Your task to perform on an android device: toggle pop-ups in chrome Image 0: 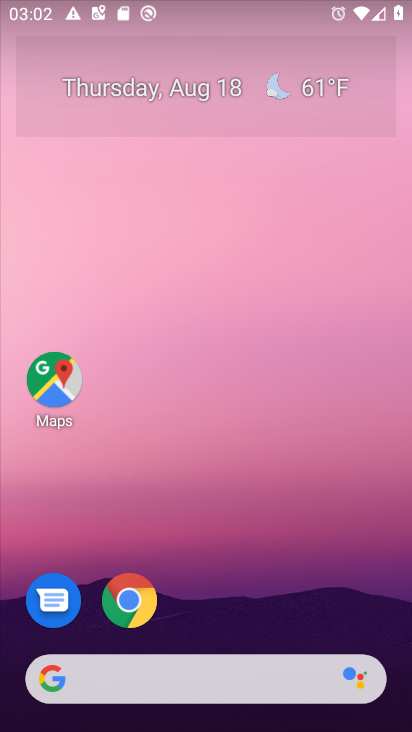
Step 0: click (116, 603)
Your task to perform on an android device: toggle pop-ups in chrome Image 1: 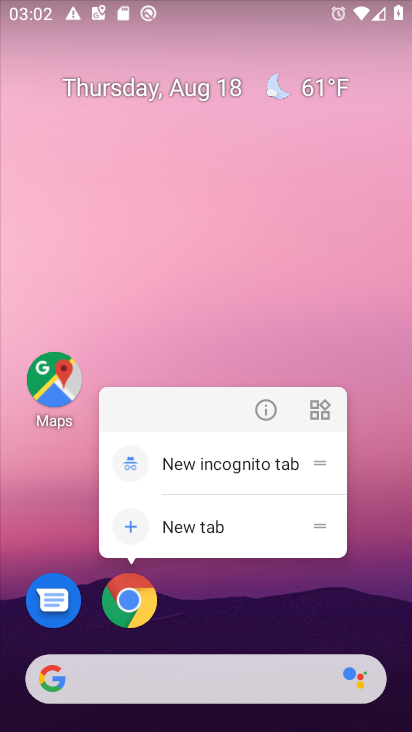
Step 1: click (116, 603)
Your task to perform on an android device: toggle pop-ups in chrome Image 2: 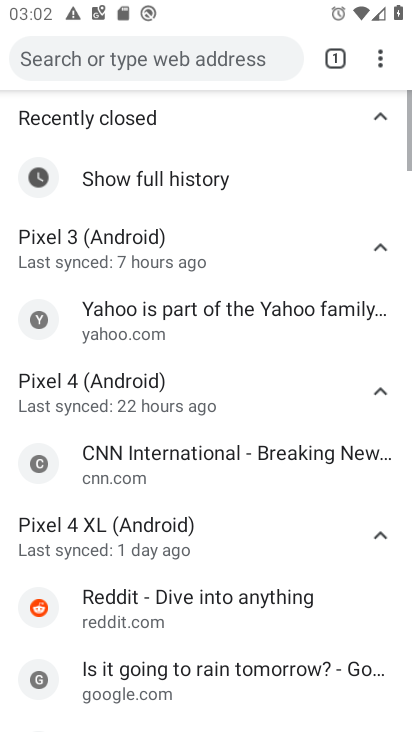
Step 2: drag from (380, 57) to (183, 491)
Your task to perform on an android device: toggle pop-ups in chrome Image 3: 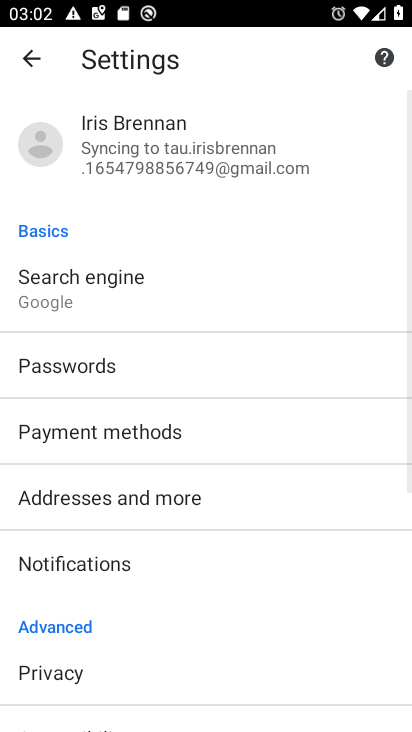
Step 3: drag from (276, 611) to (291, 196)
Your task to perform on an android device: toggle pop-ups in chrome Image 4: 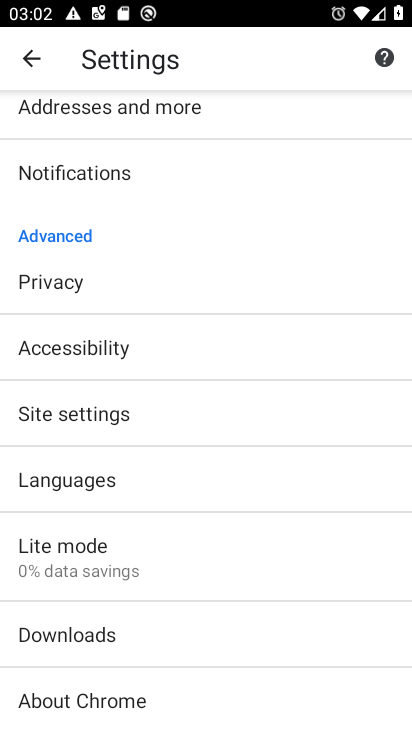
Step 4: click (77, 421)
Your task to perform on an android device: toggle pop-ups in chrome Image 5: 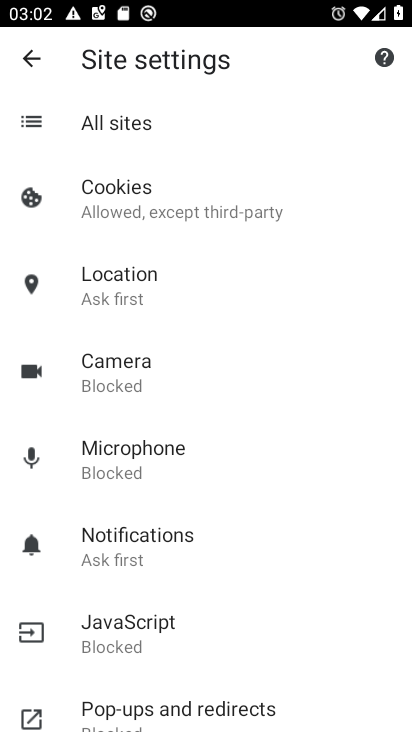
Step 5: click (185, 723)
Your task to perform on an android device: toggle pop-ups in chrome Image 6: 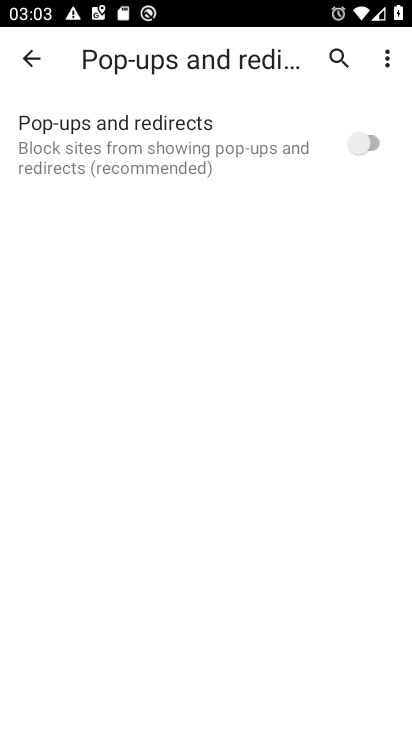
Step 6: click (356, 142)
Your task to perform on an android device: toggle pop-ups in chrome Image 7: 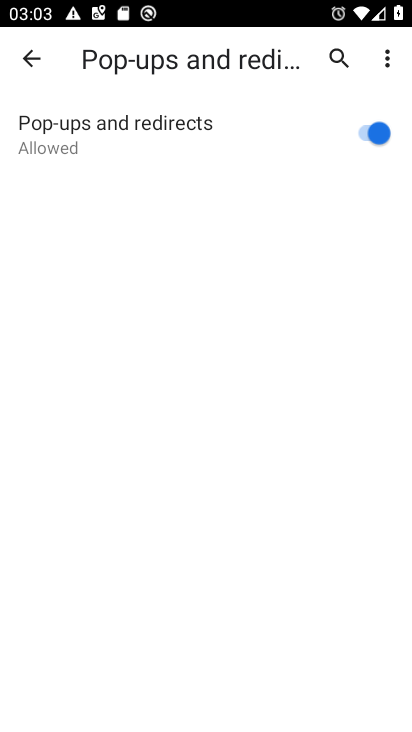
Step 7: task complete